Your task to perform on an android device: turn on showing notifications on the lock screen Image 0: 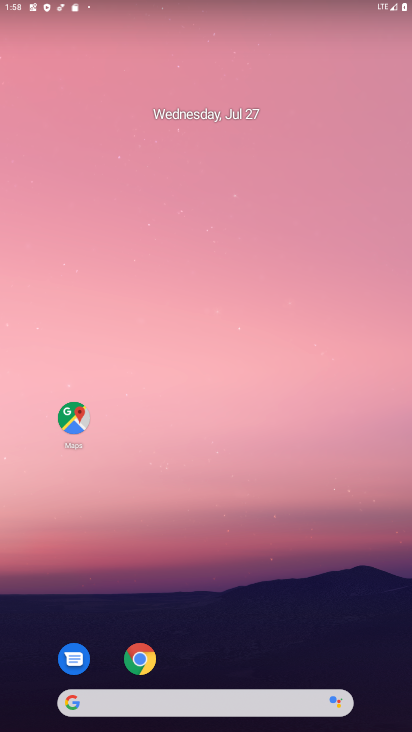
Step 0: drag from (173, 707) to (173, 155)
Your task to perform on an android device: turn on showing notifications on the lock screen Image 1: 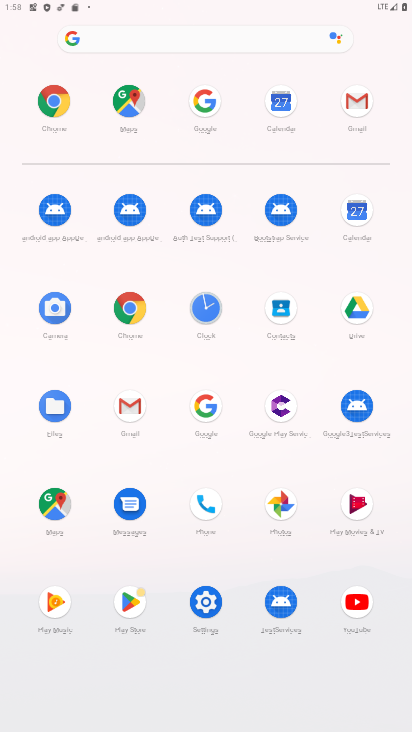
Step 1: click (209, 610)
Your task to perform on an android device: turn on showing notifications on the lock screen Image 2: 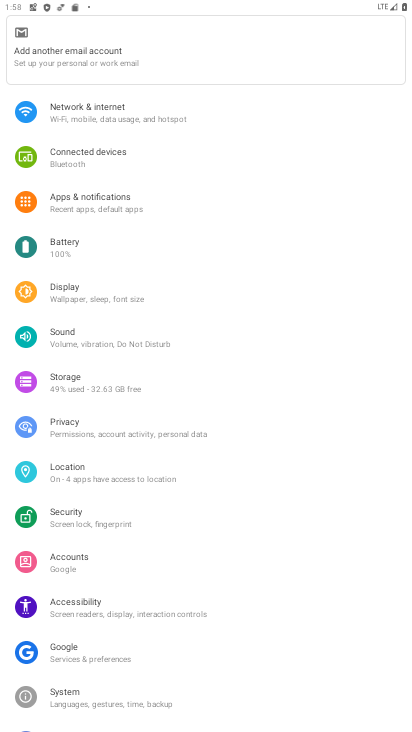
Step 2: click (69, 200)
Your task to perform on an android device: turn on showing notifications on the lock screen Image 3: 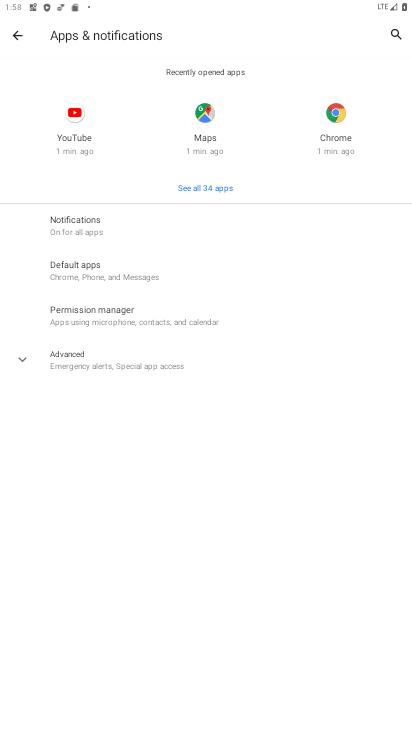
Step 3: click (70, 223)
Your task to perform on an android device: turn on showing notifications on the lock screen Image 4: 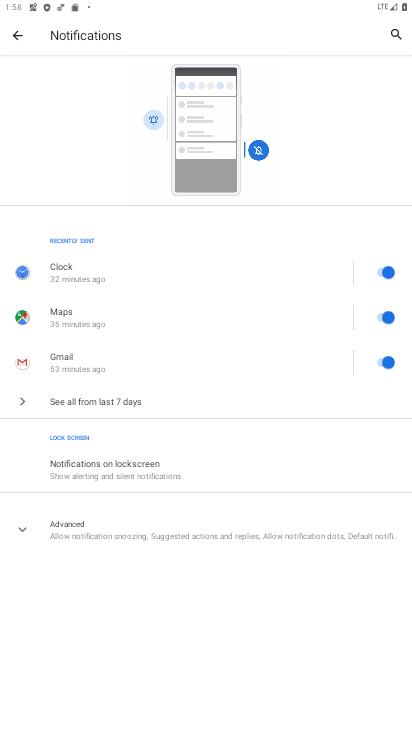
Step 4: click (110, 468)
Your task to perform on an android device: turn on showing notifications on the lock screen Image 5: 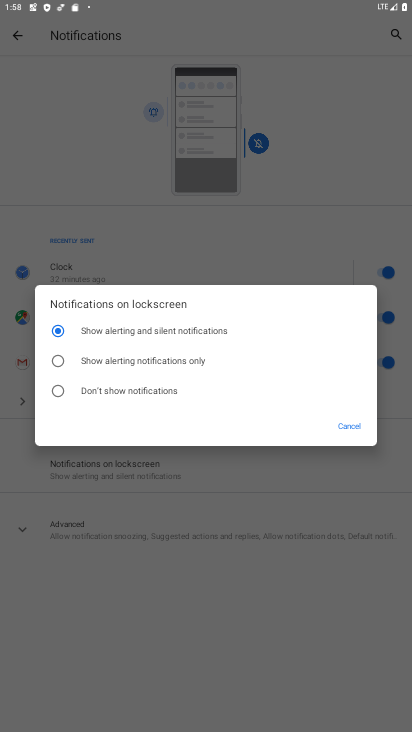
Step 5: task complete